Your task to perform on an android device: change text size in settings app Image 0: 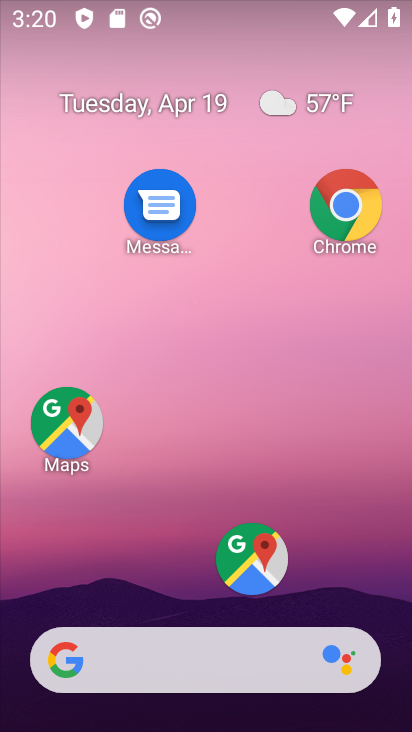
Step 0: drag from (189, 599) to (253, 181)
Your task to perform on an android device: change text size in settings app Image 1: 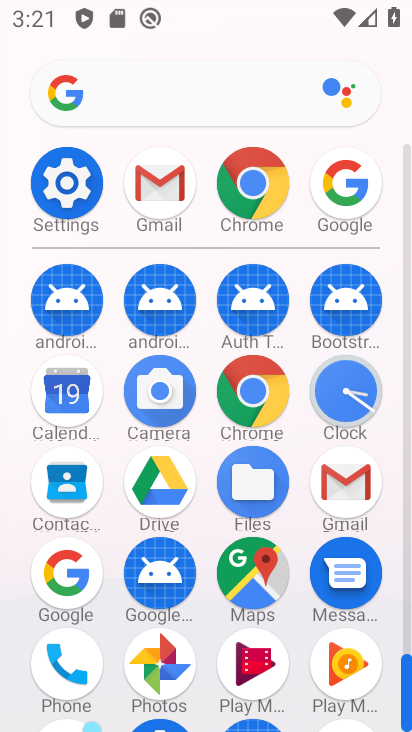
Step 1: drag from (214, 471) to (259, 170)
Your task to perform on an android device: change text size in settings app Image 2: 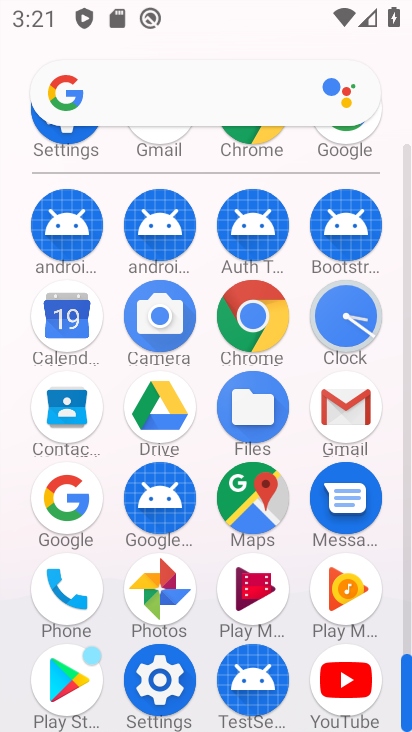
Step 2: click (161, 659)
Your task to perform on an android device: change text size in settings app Image 3: 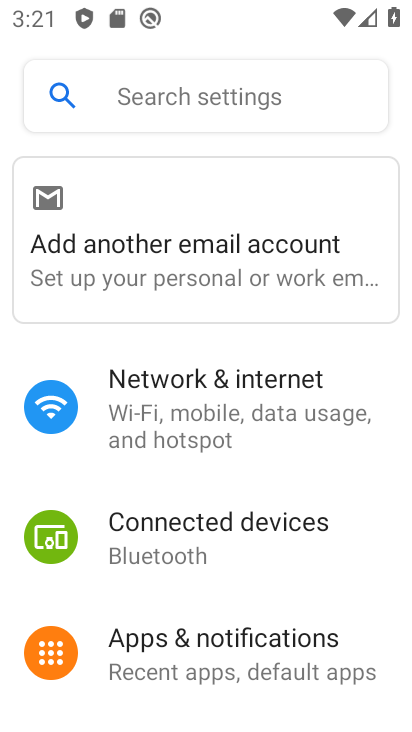
Step 3: drag from (255, 414) to (271, 311)
Your task to perform on an android device: change text size in settings app Image 4: 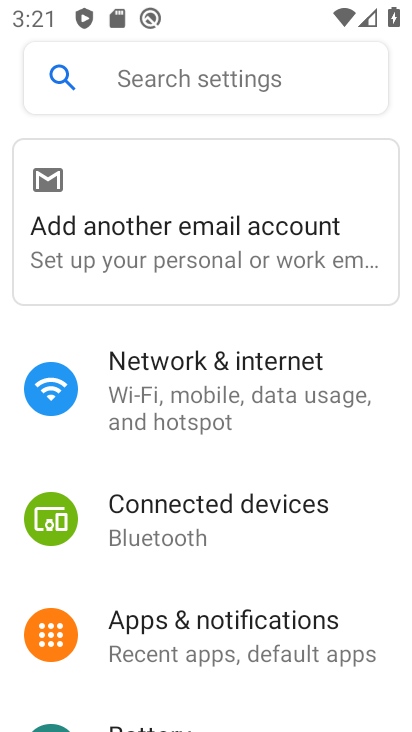
Step 4: drag from (244, 687) to (257, 355)
Your task to perform on an android device: change text size in settings app Image 5: 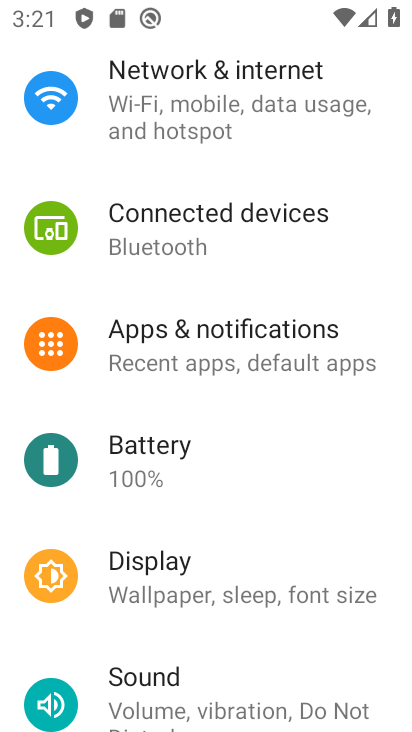
Step 5: click (244, 579)
Your task to perform on an android device: change text size in settings app Image 6: 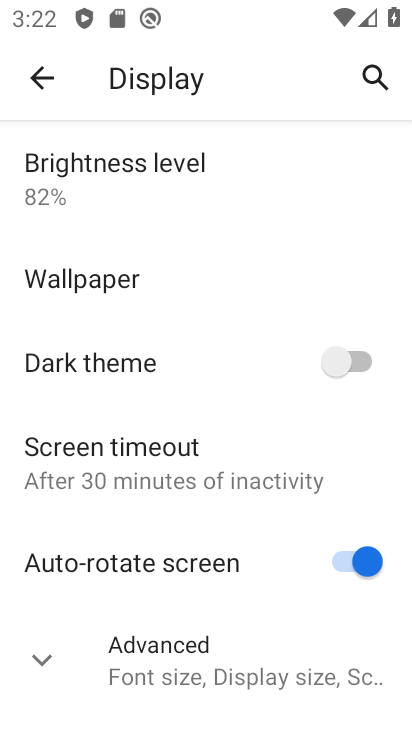
Step 6: drag from (259, 643) to (306, 462)
Your task to perform on an android device: change text size in settings app Image 7: 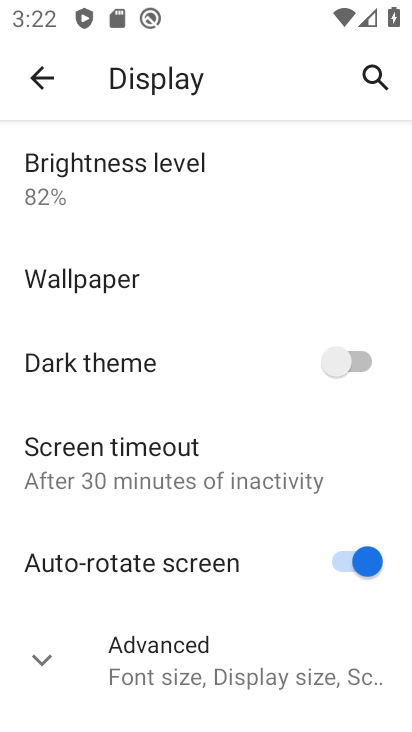
Step 7: click (33, 661)
Your task to perform on an android device: change text size in settings app Image 8: 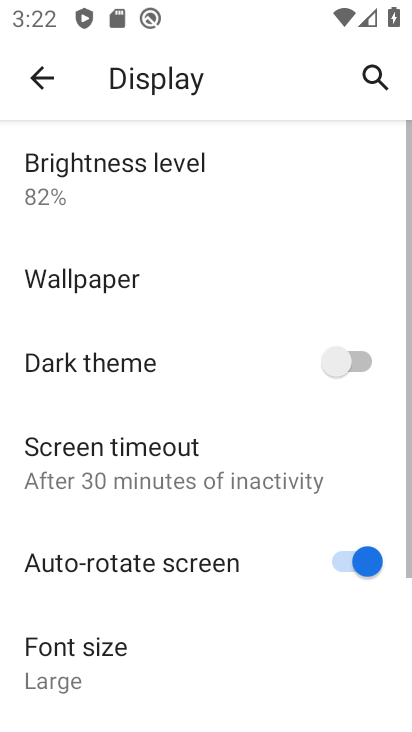
Step 8: drag from (159, 664) to (259, 360)
Your task to perform on an android device: change text size in settings app Image 9: 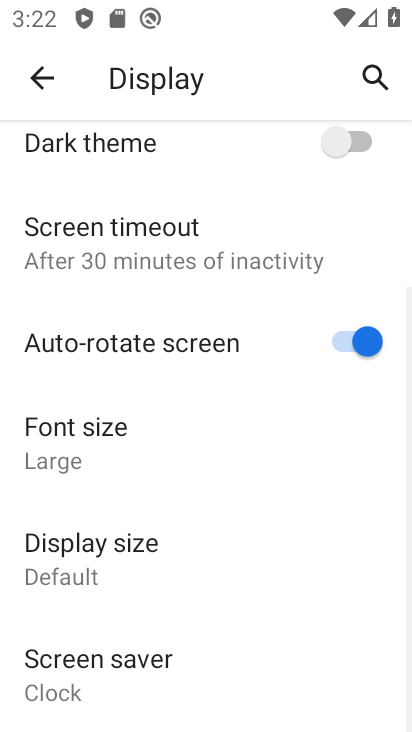
Step 9: drag from (215, 635) to (280, 310)
Your task to perform on an android device: change text size in settings app Image 10: 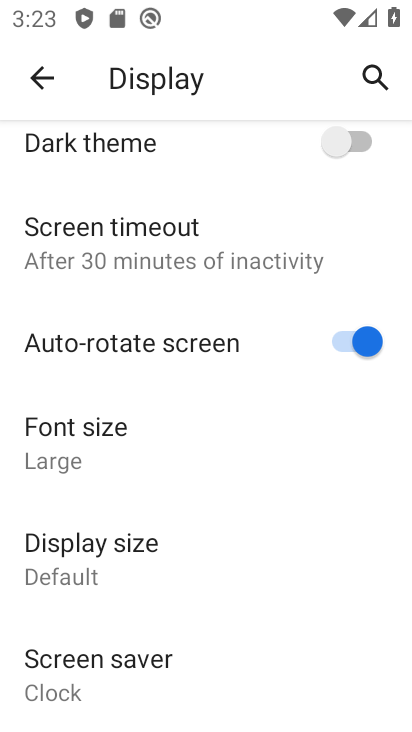
Step 10: click (68, 447)
Your task to perform on an android device: change text size in settings app Image 11: 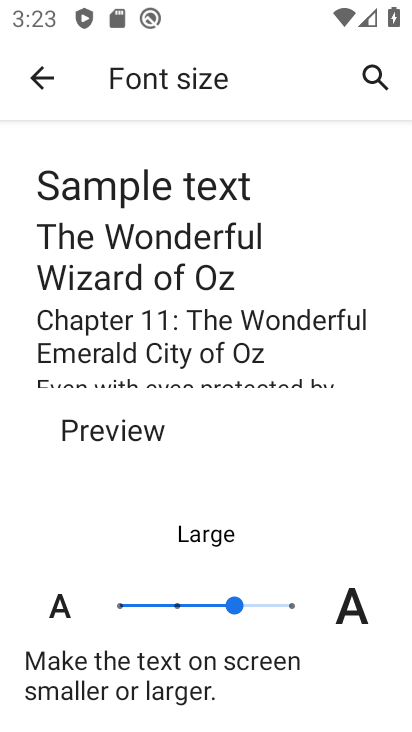
Step 11: click (257, 603)
Your task to perform on an android device: change text size in settings app Image 12: 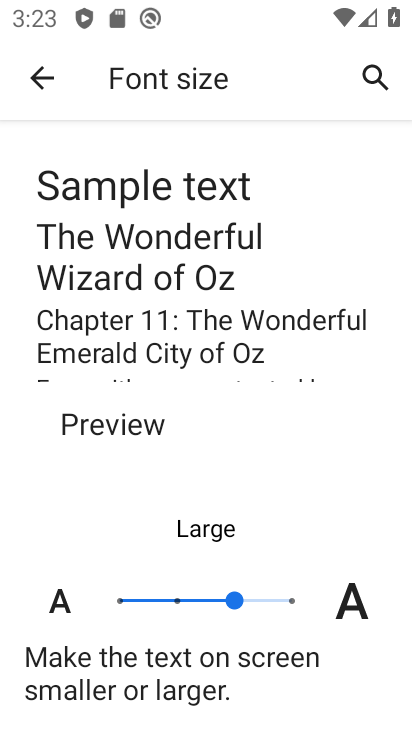
Step 12: task complete